Your task to perform on an android device: Open accessibility settings Image 0: 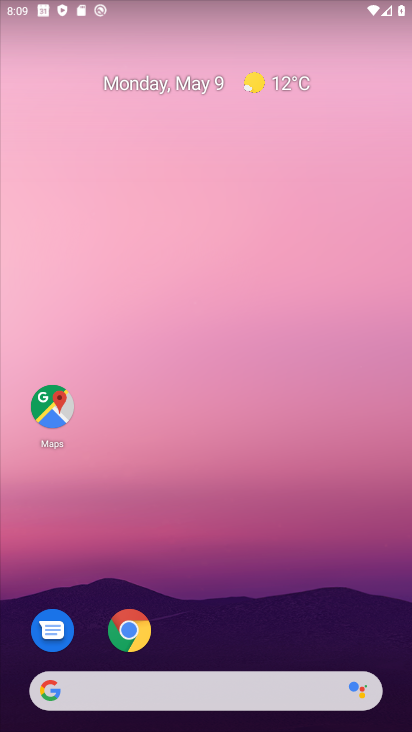
Step 0: drag from (190, 675) to (278, 84)
Your task to perform on an android device: Open accessibility settings Image 1: 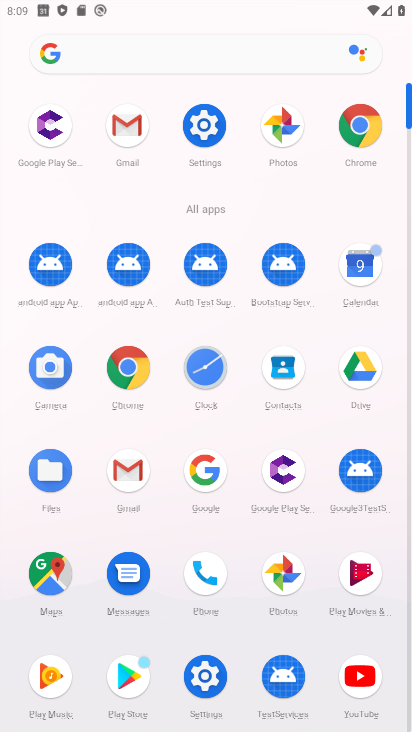
Step 1: click (197, 133)
Your task to perform on an android device: Open accessibility settings Image 2: 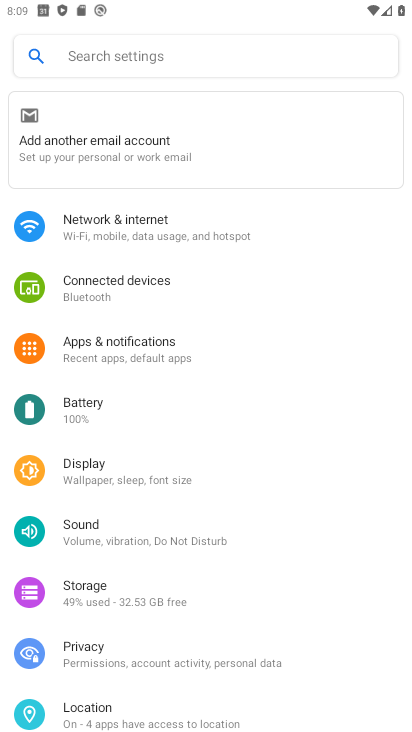
Step 2: drag from (153, 717) to (211, 294)
Your task to perform on an android device: Open accessibility settings Image 3: 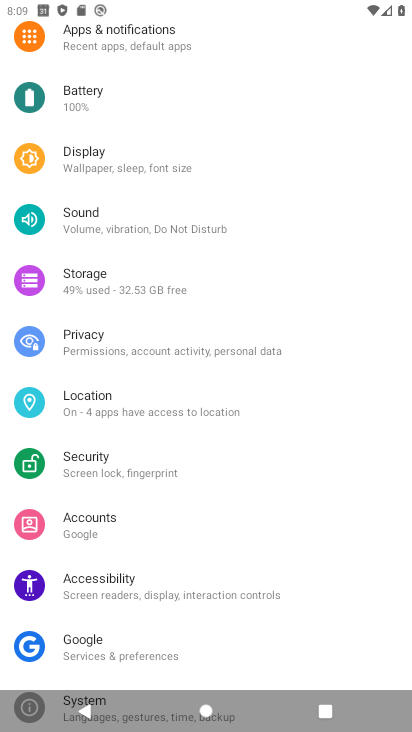
Step 3: drag from (150, 648) to (177, 388)
Your task to perform on an android device: Open accessibility settings Image 4: 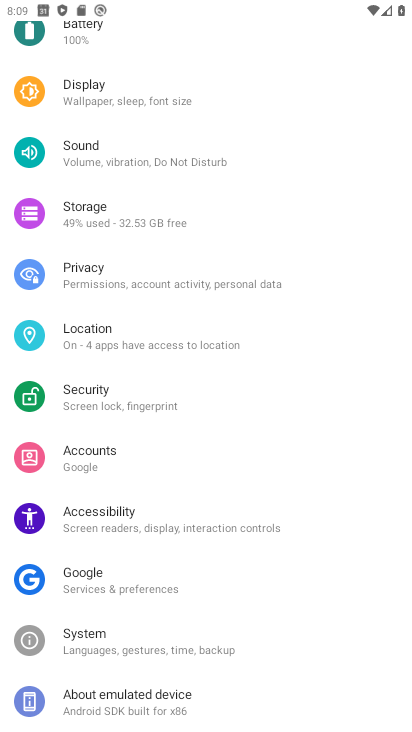
Step 4: click (129, 519)
Your task to perform on an android device: Open accessibility settings Image 5: 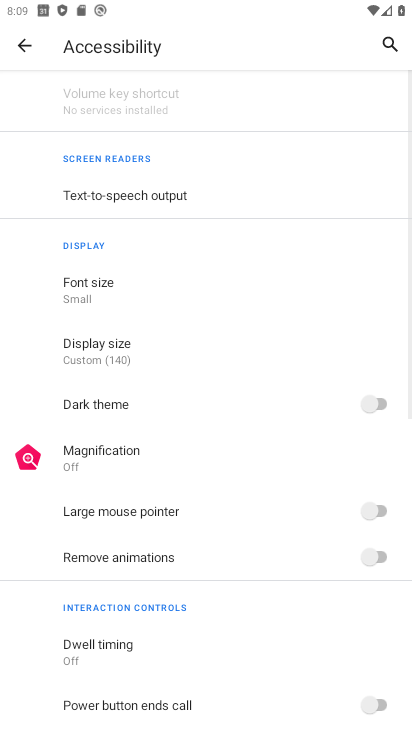
Step 5: task complete